Your task to perform on an android device: Open calendar and show me the second week of next month Image 0: 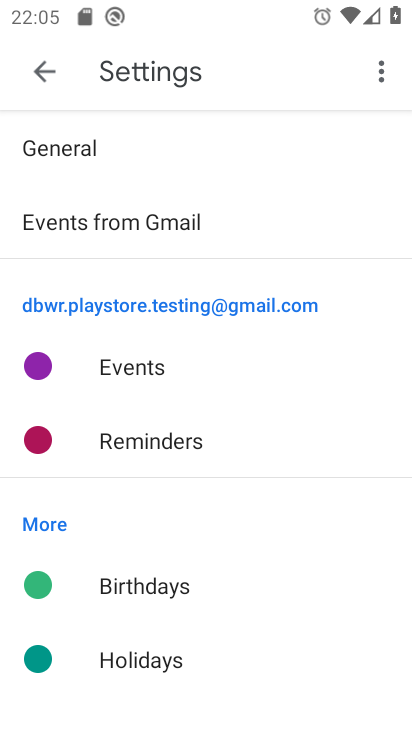
Step 0: press home button
Your task to perform on an android device: Open calendar and show me the second week of next month Image 1: 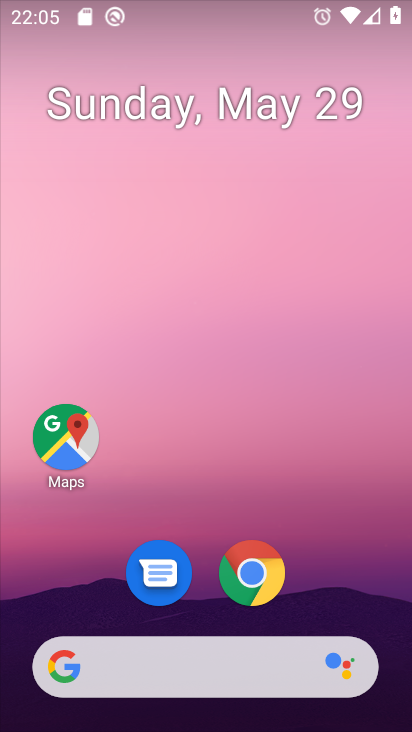
Step 1: drag from (225, 464) to (294, 0)
Your task to perform on an android device: Open calendar and show me the second week of next month Image 2: 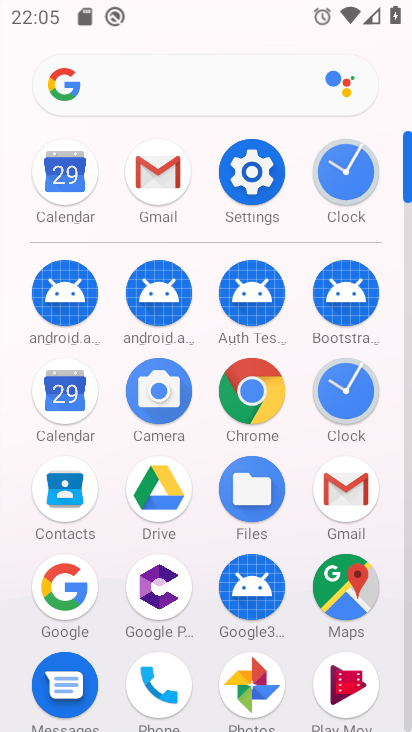
Step 2: click (66, 185)
Your task to perform on an android device: Open calendar and show me the second week of next month Image 3: 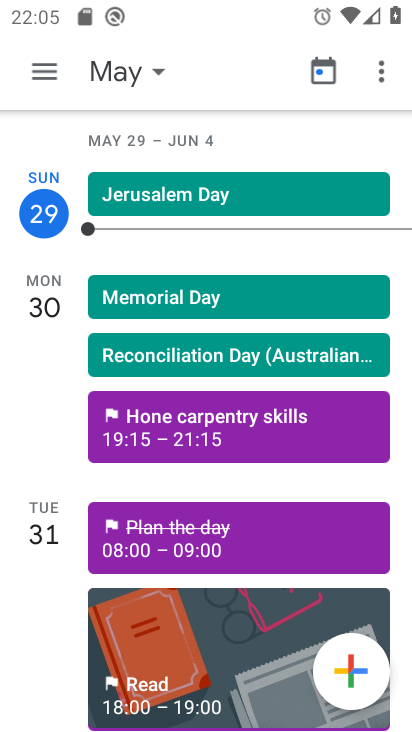
Step 3: click (48, 69)
Your task to perform on an android device: Open calendar and show me the second week of next month Image 4: 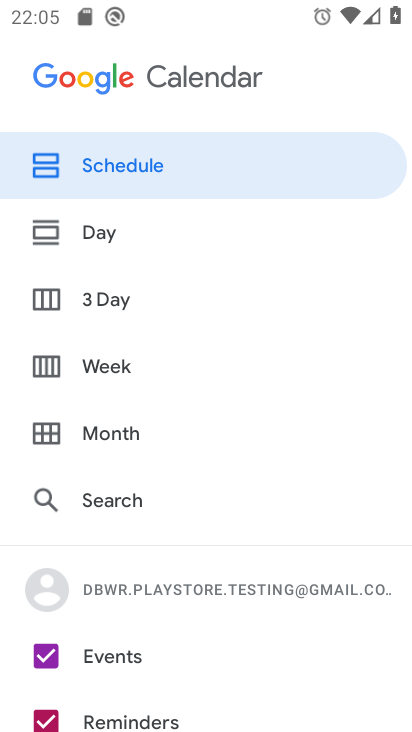
Step 4: click (118, 356)
Your task to perform on an android device: Open calendar and show me the second week of next month Image 5: 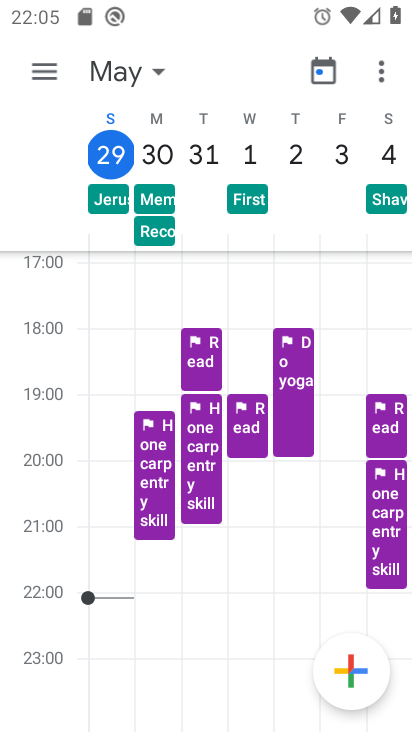
Step 5: task complete